Your task to perform on an android device: Open Google Chrome and click the shortcut for Amazon.com Image 0: 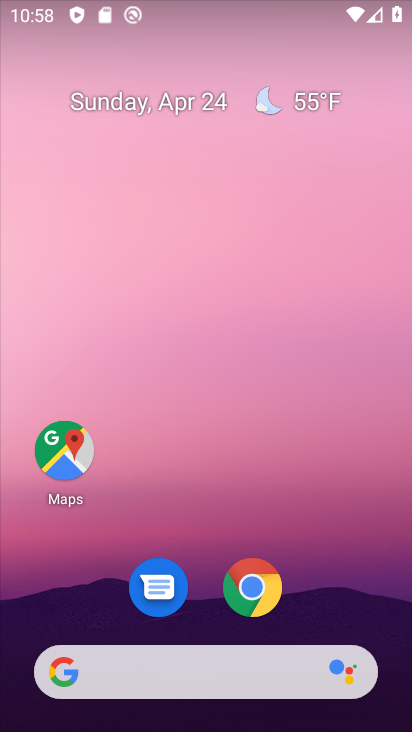
Step 0: drag from (373, 530) to (396, 5)
Your task to perform on an android device: Open Google Chrome and click the shortcut for Amazon.com Image 1: 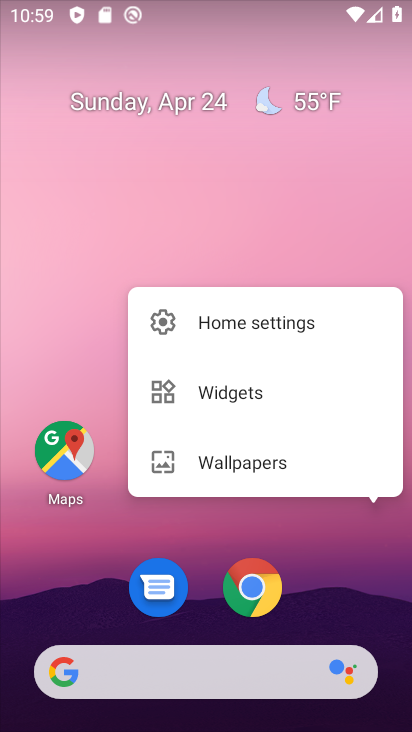
Step 1: click (335, 573)
Your task to perform on an android device: Open Google Chrome and click the shortcut for Amazon.com Image 2: 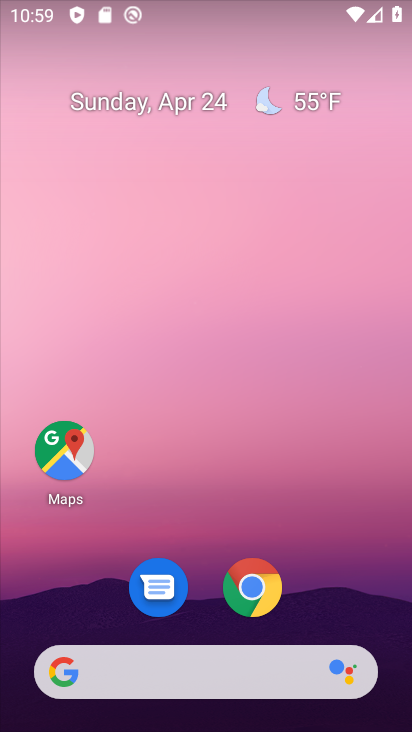
Step 2: click (250, 596)
Your task to perform on an android device: Open Google Chrome and click the shortcut for Amazon.com Image 3: 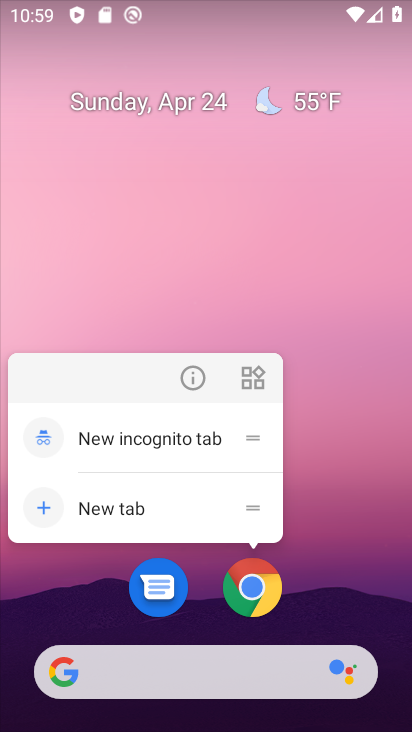
Step 3: click (252, 597)
Your task to perform on an android device: Open Google Chrome and click the shortcut for Amazon.com Image 4: 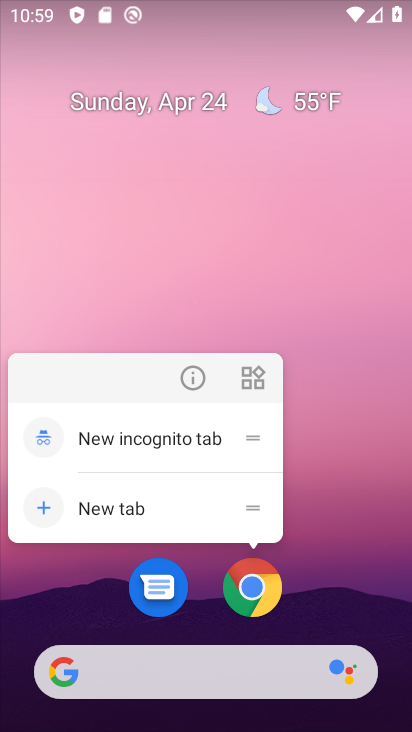
Step 4: click (252, 593)
Your task to perform on an android device: Open Google Chrome and click the shortcut for Amazon.com Image 5: 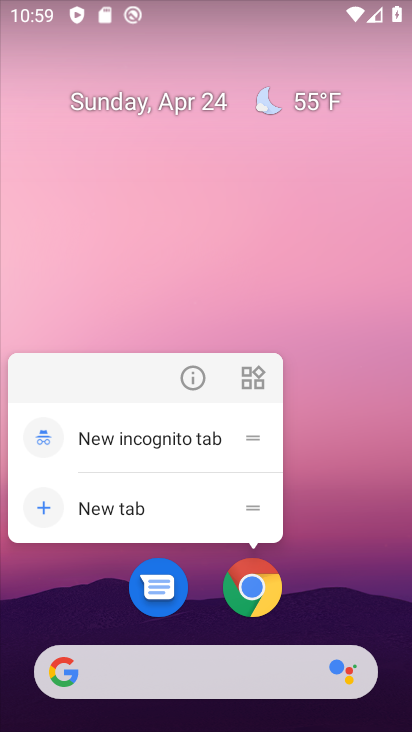
Step 5: click (252, 593)
Your task to perform on an android device: Open Google Chrome and click the shortcut for Amazon.com Image 6: 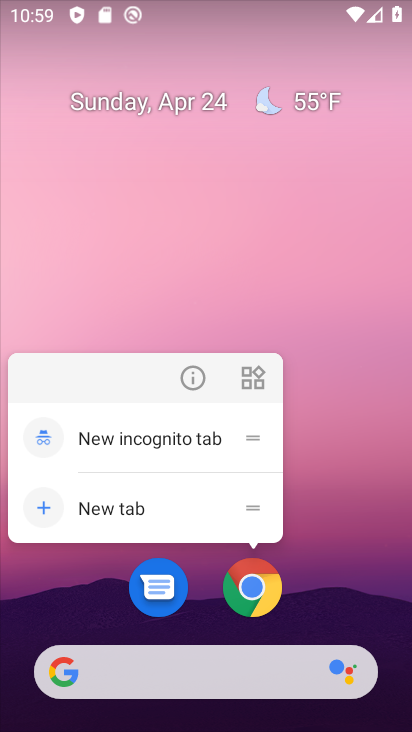
Step 6: click (252, 593)
Your task to perform on an android device: Open Google Chrome and click the shortcut for Amazon.com Image 7: 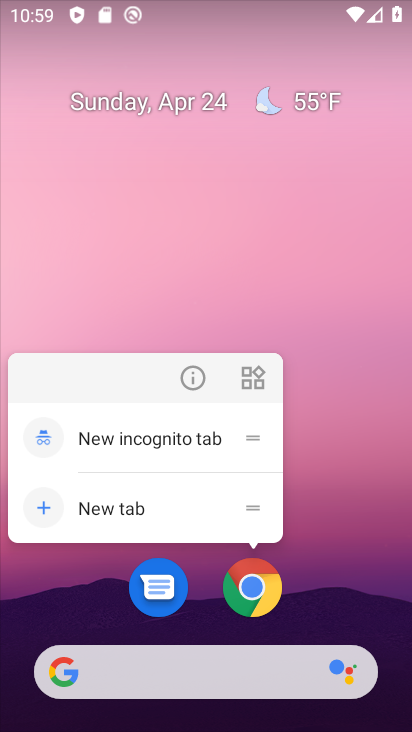
Step 7: click (252, 593)
Your task to perform on an android device: Open Google Chrome and click the shortcut for Amazon.com Image 8: 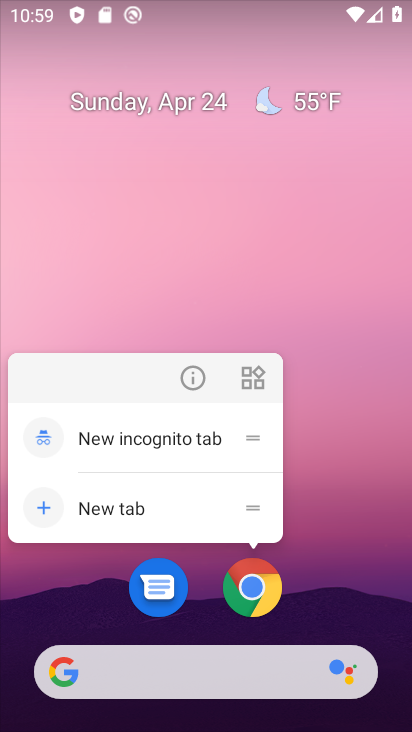
Step 8: click (252, 593)
Your task to perform on an android device: Open Google Chrome and click the shortcut for Amazon.com Image 9: 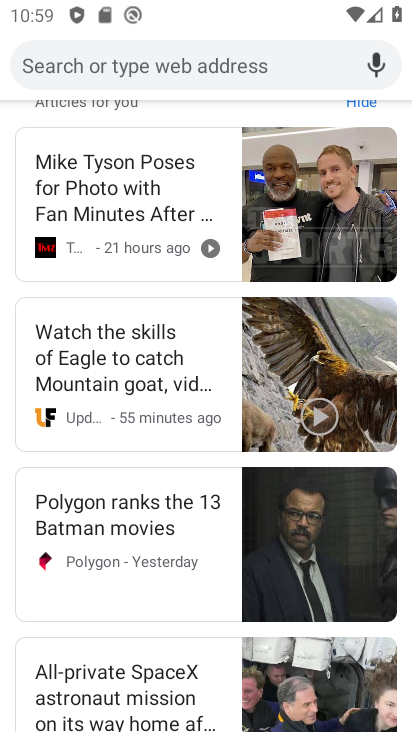
Step 9: click (172, 62)
Your task to perform on an android device: Open Google Chrome and click the shortcut for Amazon.com Image 10: 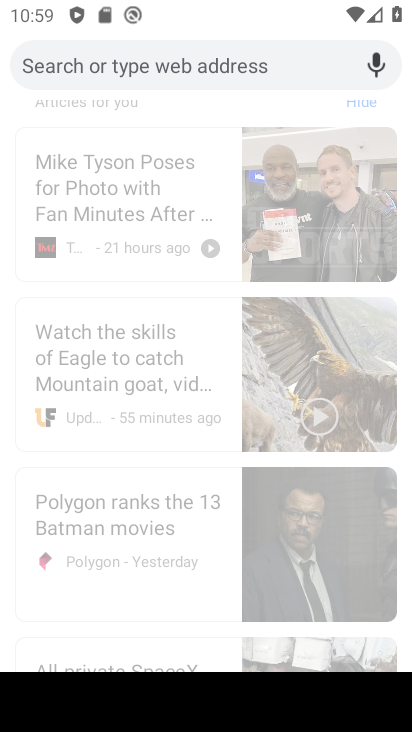
Step 10: press back button
Your task to perform on an android device: Open Google Chrome and click the shortcut for Amazon.com Image 11: 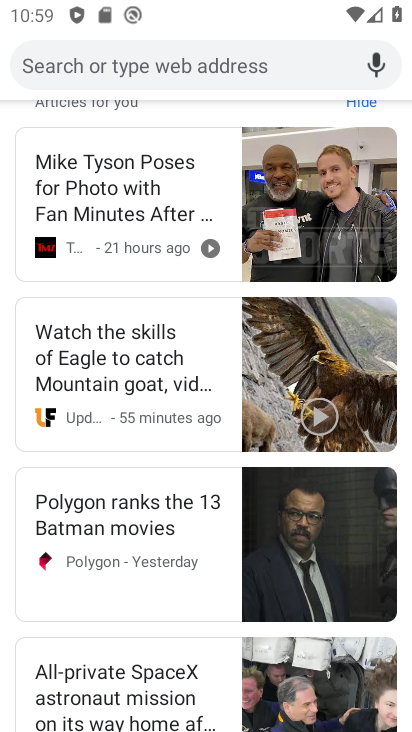
Step 11: press back button
Your task to perform on an android device: Open Google Chrome and click the shortcut for Amazon.com Image 12: 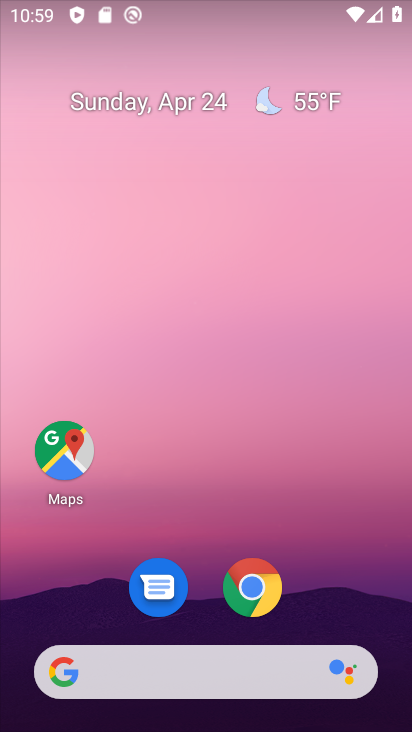
Step 12: click (252, 580)
Your task to perform on an android device: Open Google Chrome and click the shortcut for Amazon.com Image 13: 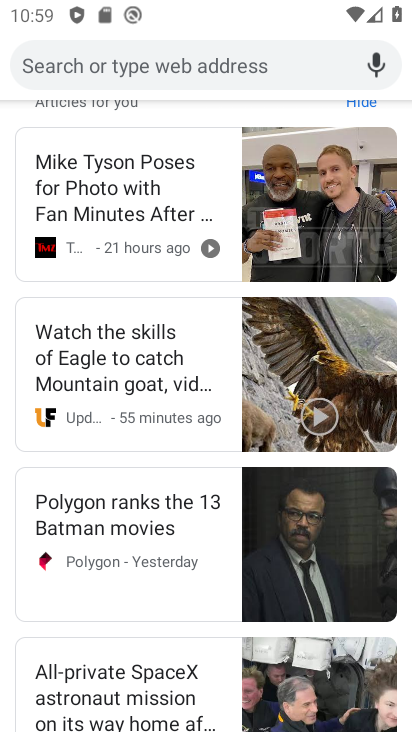
Step 13: drag from (191, 138) to (272, 615)
Your task to perform on an android device: Open Google Chrome and click the shortcut for Amazon.com Image 14: 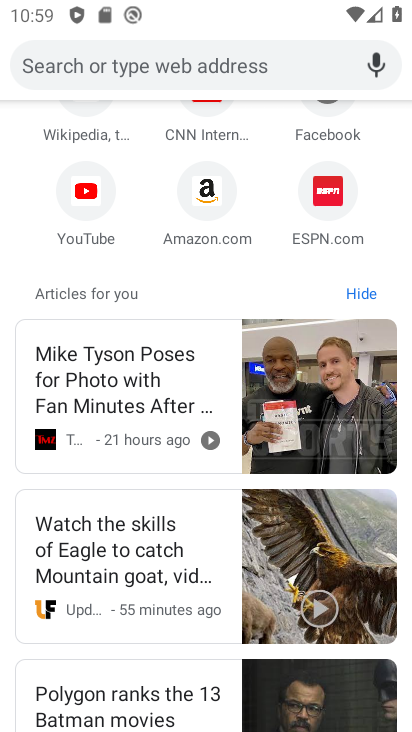
Step 14: drag from (239, 268) to (285, 645)
Your task to perform on an android device: Open Google Chrome and click the shortcut for Amazon.com Image 15: 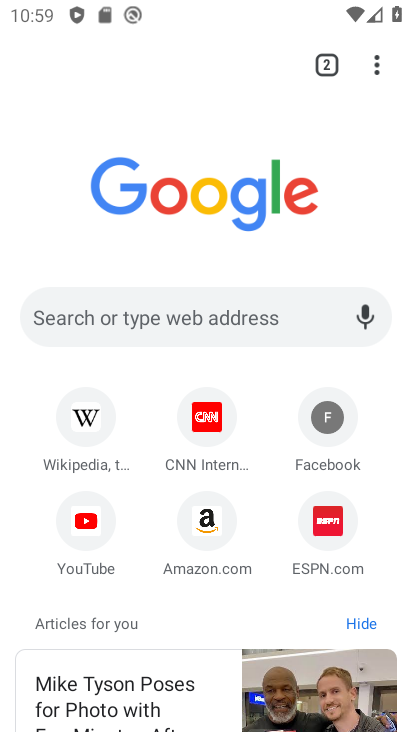
Step 15: click (207, 507)
Your task to perform on an android device: Open Google Chrome and click the shortcut for Amazon.com Image 16: 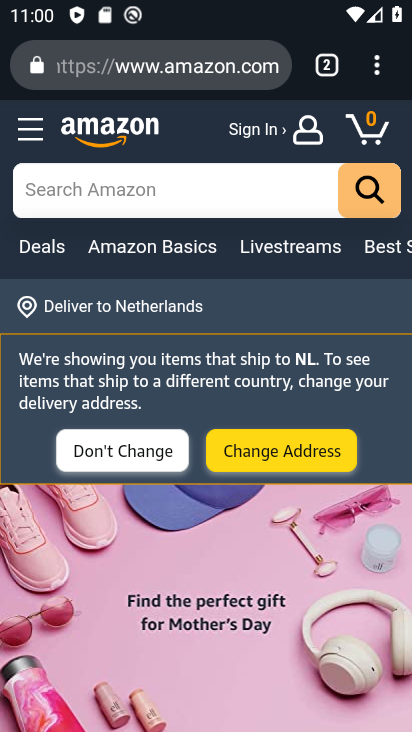
Step 16: drag from (379, 74) to (245, 516)
Your task to perform on an android device: Open Google Chrome and click the shortcut for Amazon.com Image 17: 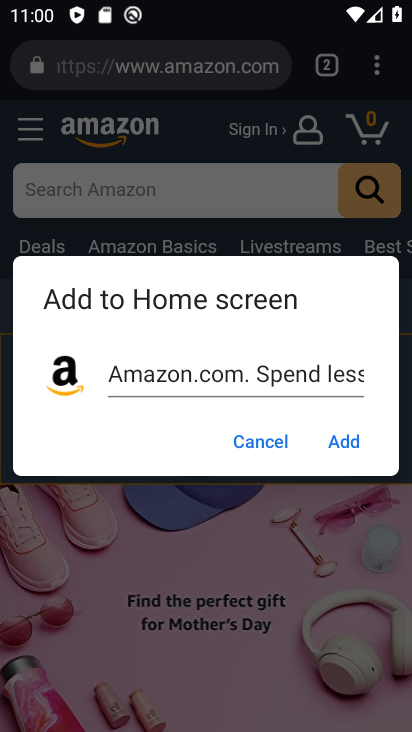
Step 17: click (342, 440)
Your task to perform on an android device: Open Google Chrome and click the shortcut for Amazon.com Image 18: 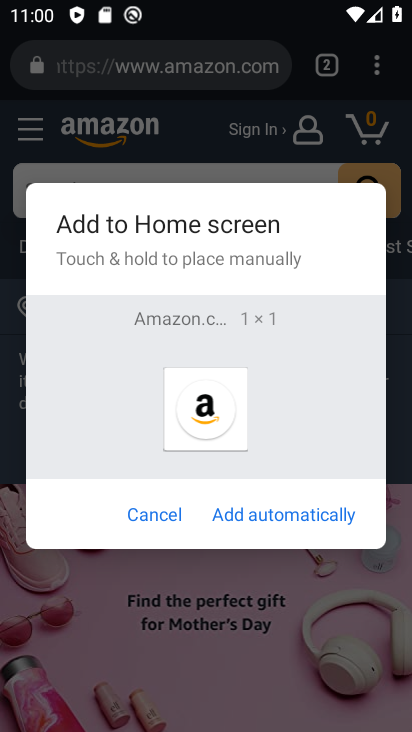
Step 18: click (293, 519)
Your task to perform on an android device: Open Google Chrome and click the shortcut for Amazon.com Image 19: 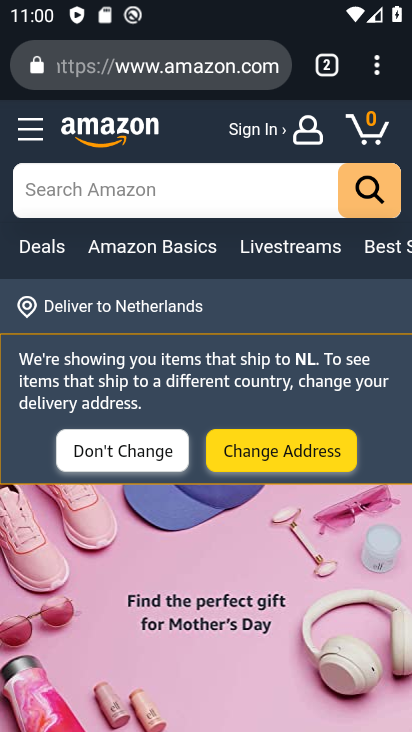
Step 19: task complete